Your task to perform on an android device: uninstall "AliExpress" Image 0: 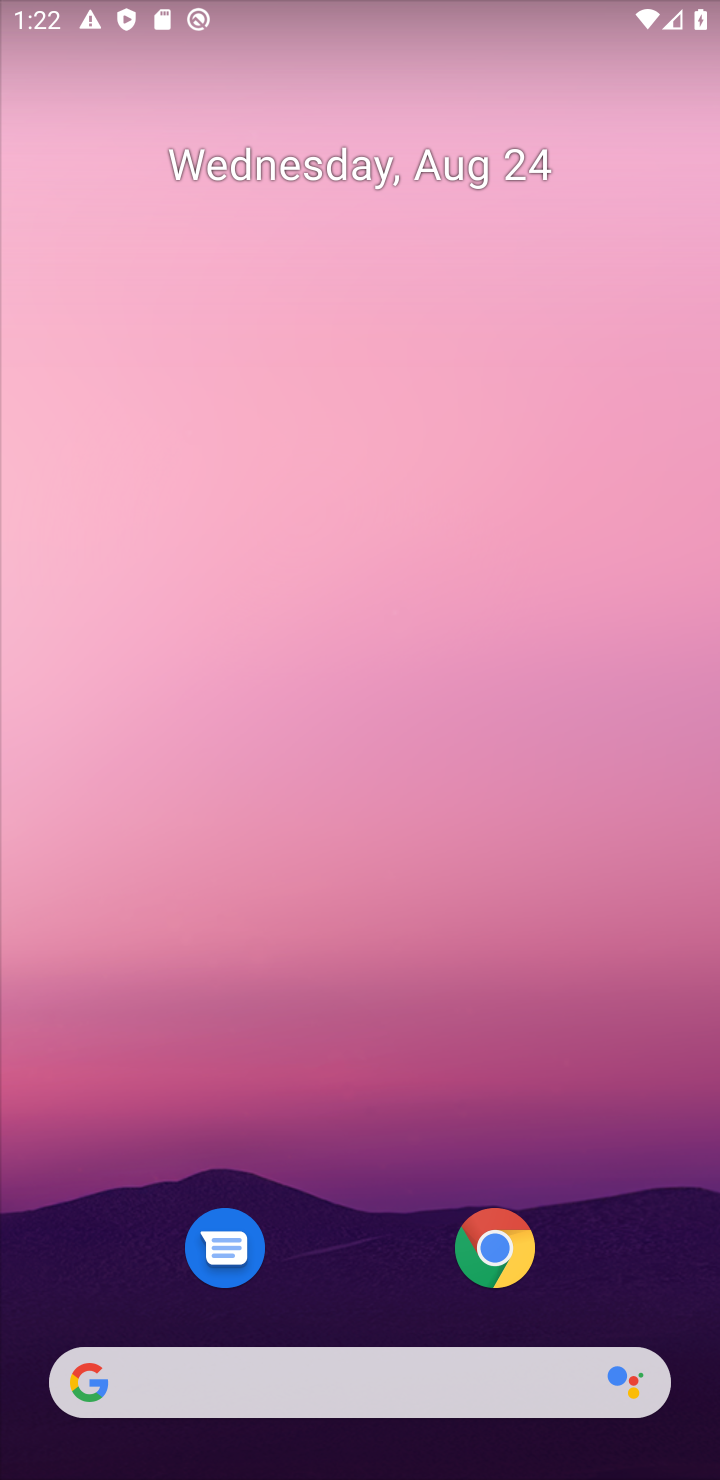
Step 0: drag from (338, 1281) to (385, 435)
Your task to perform on an android device: uninstall "AliExpress" Image 1: 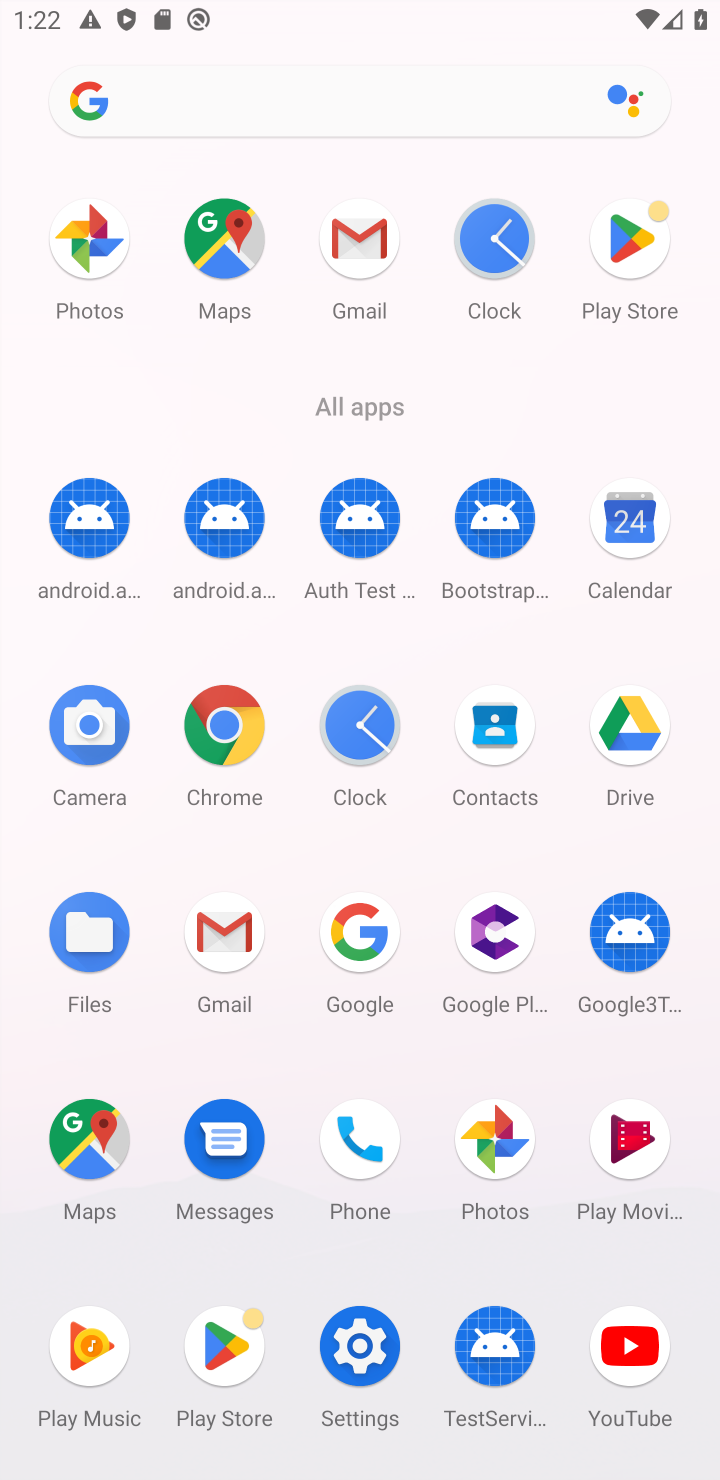
Step 1: click (615, 232)
Your task to perform on an android device: uninstall "AliExpress" Image 2: 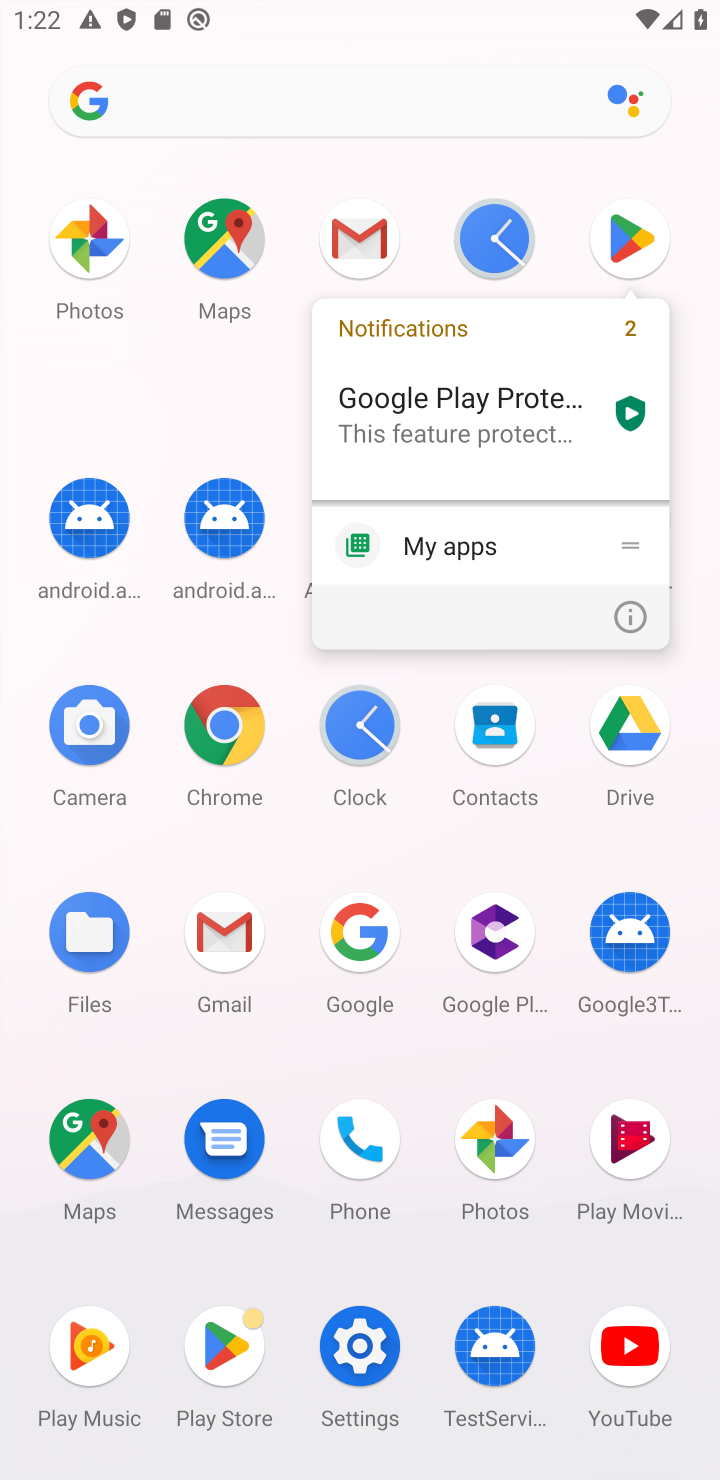
Step 2: click (629, 241)
Your task to perform on an android device: uninstall "AliExpress" Image 3: 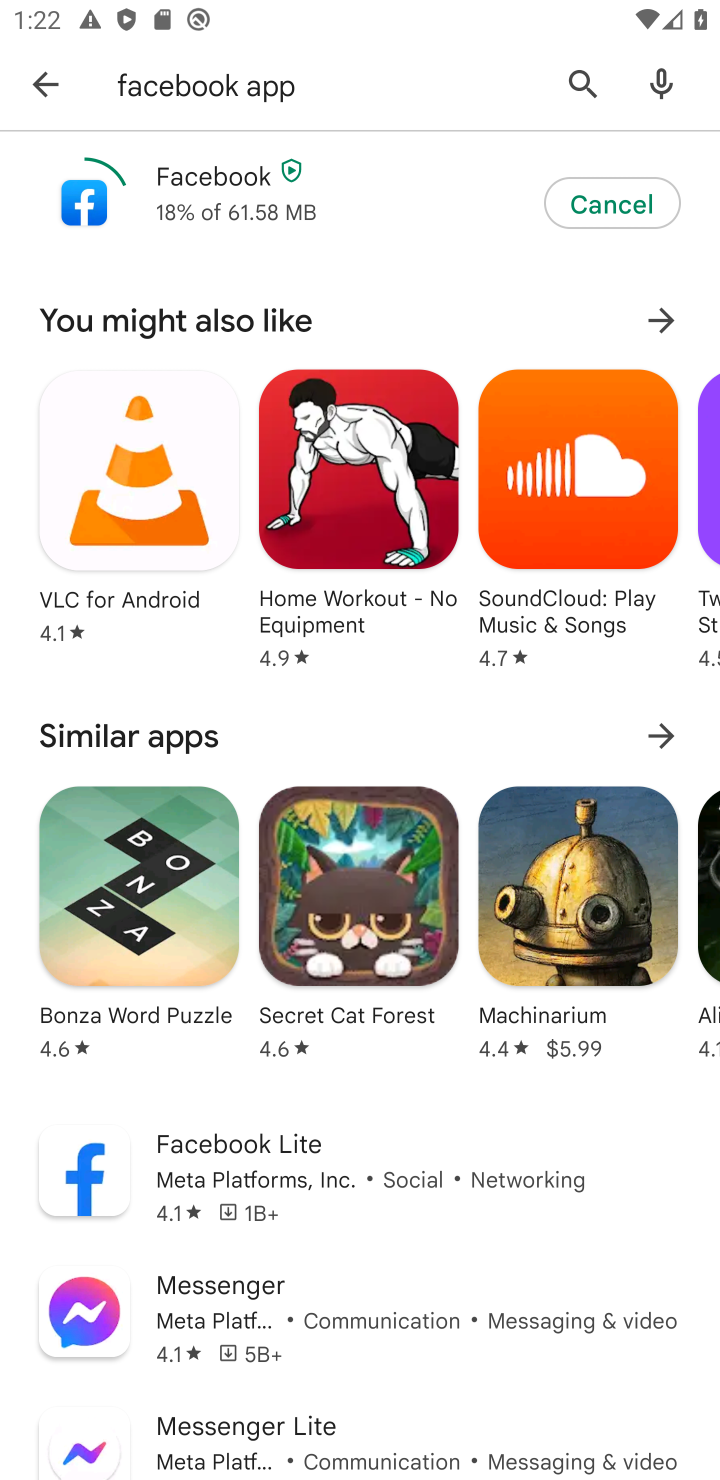
Step 3: click (42, 80)
Your task to perform on an android device: uninstall "AliExpress" Image 4: 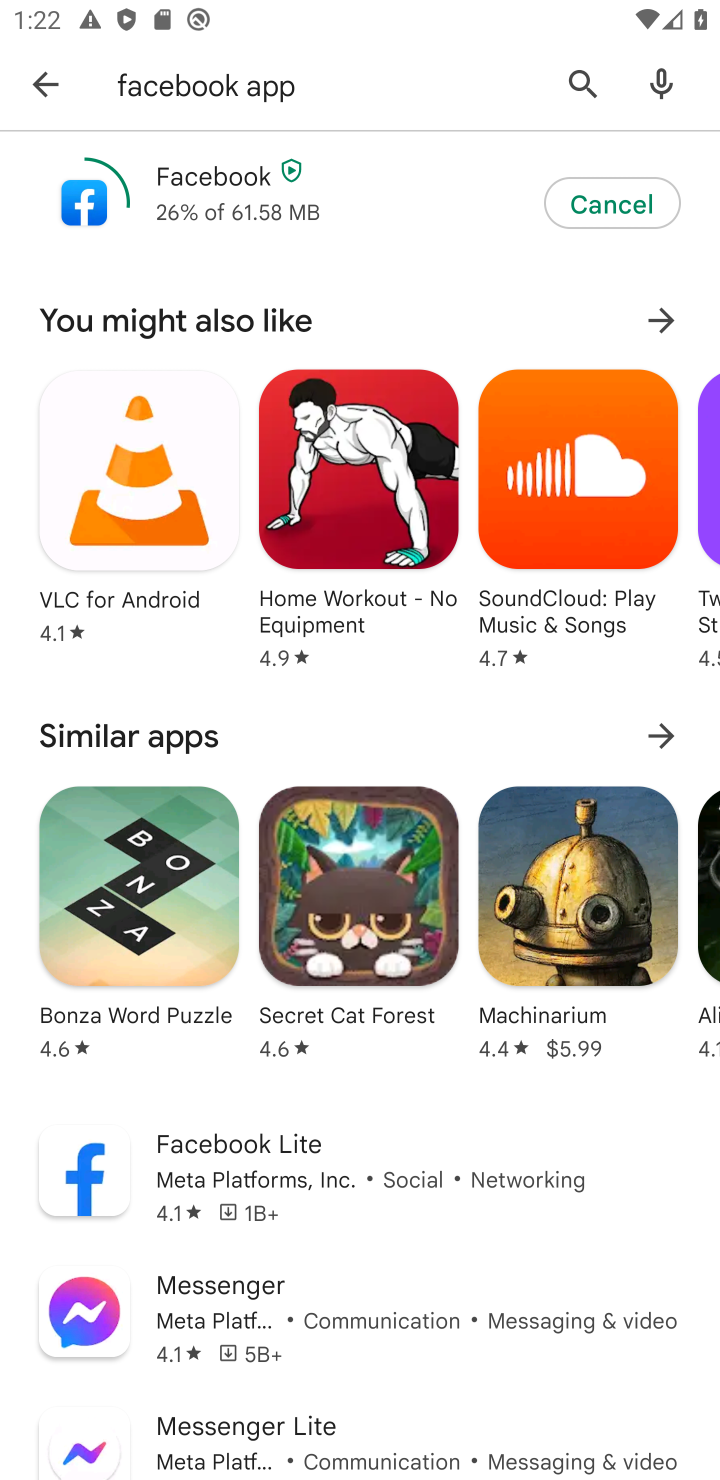
Step 4: click (42, 80)
Your task to perform on an android device: uninstall "AliExpress" Image 5: 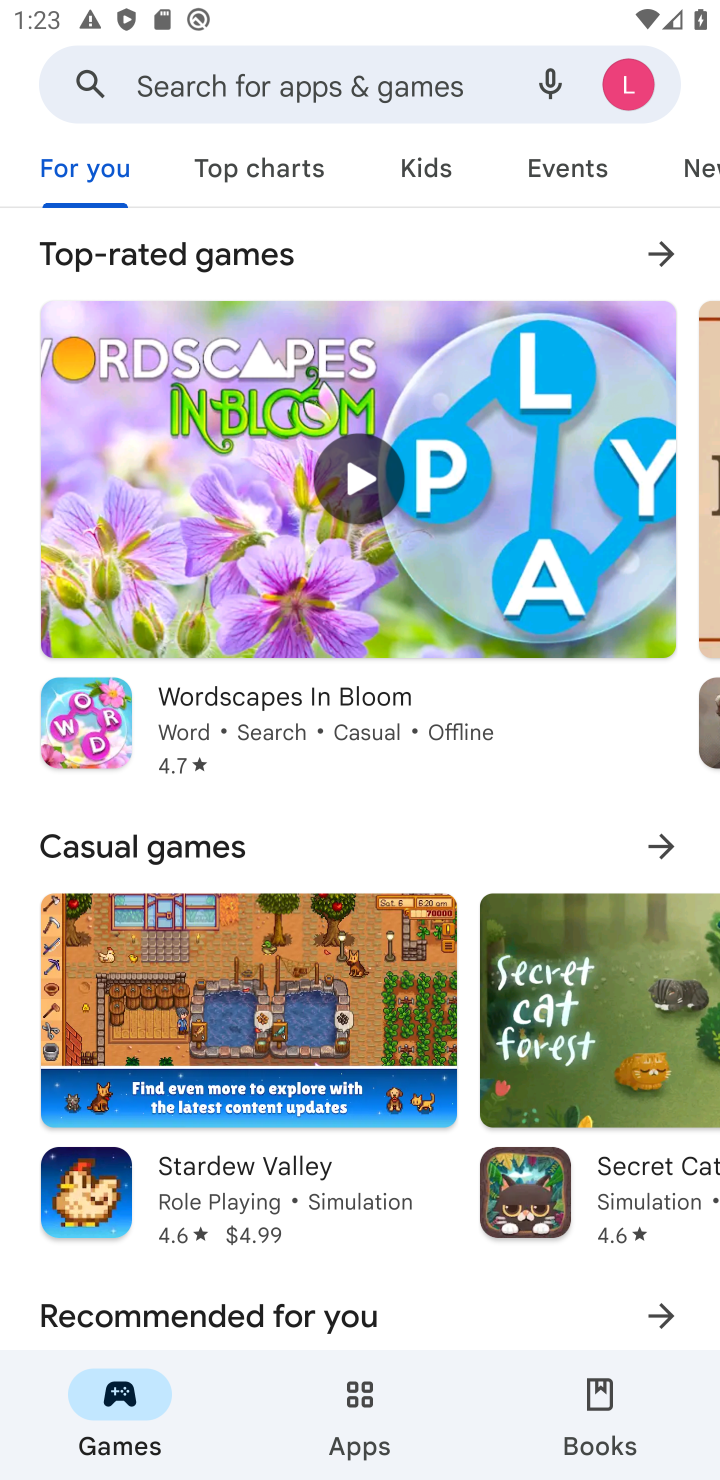
Step 5: click (252, 66)
Your task to perform on an android device: uninstall "AliExpress" Image 6: 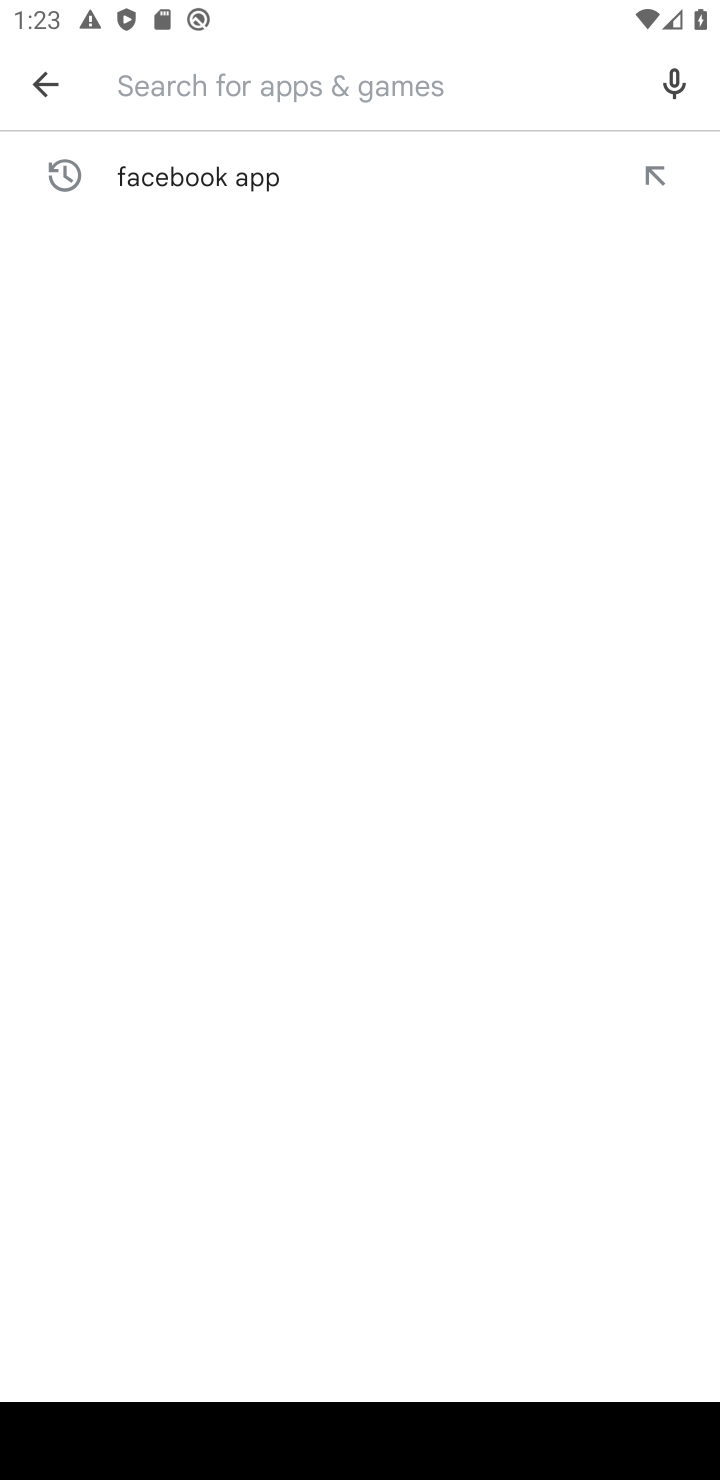
Step 6: type "AliExpress "
Your task to perform on an android device: uninstall "AliExpress" Image 7: 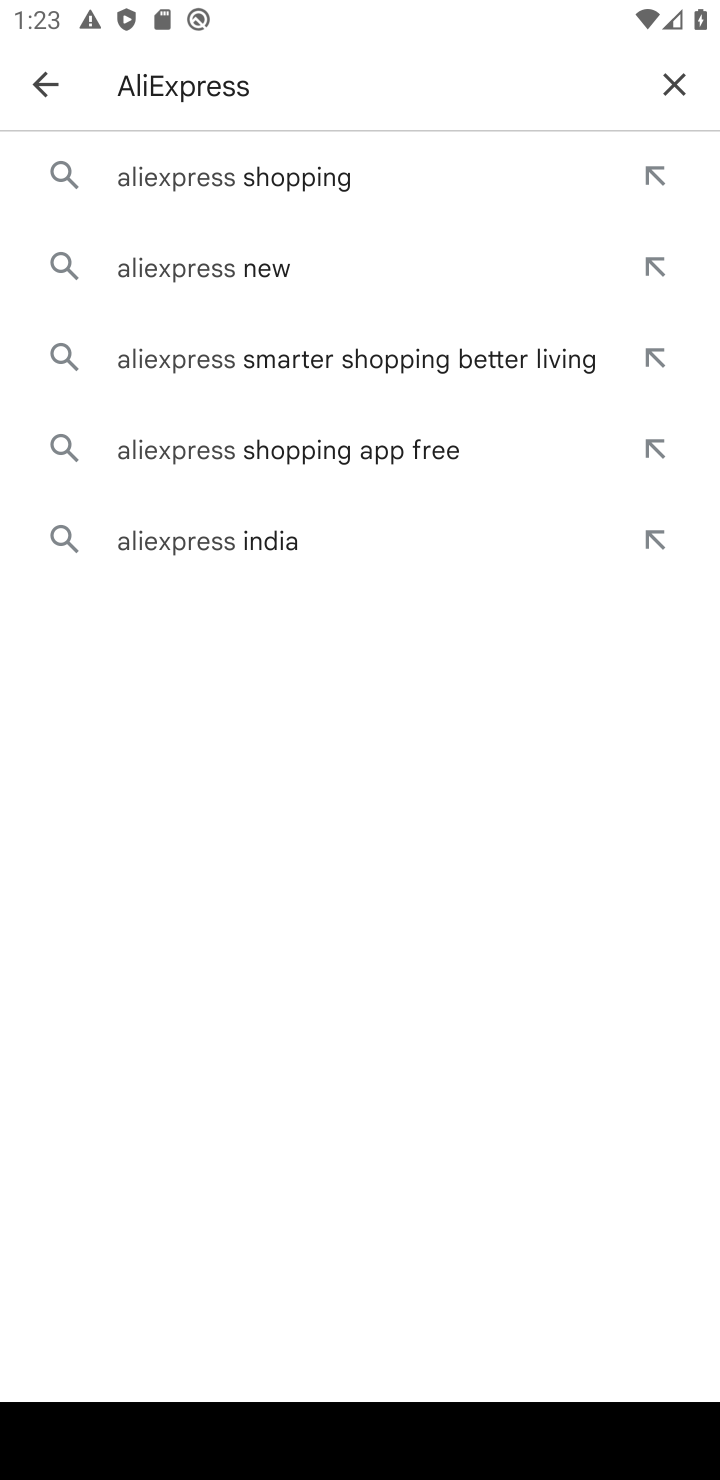
Step 7: click (233, 271)
Your task to perform on an android device: uninstall "AliExpress" Image 8: 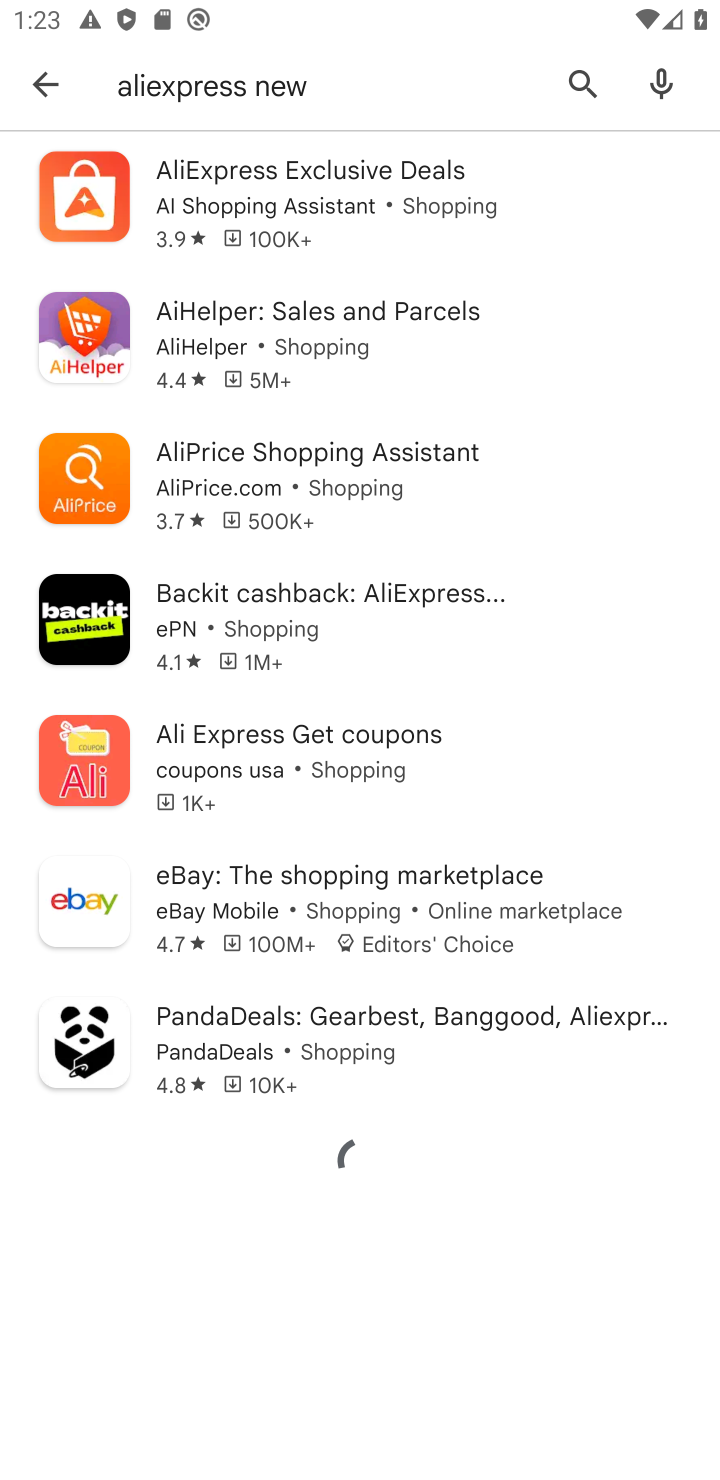
Step 8: click (364, 195)
Your task to perform on an android device: uninstall "AliExpress" Image 9: 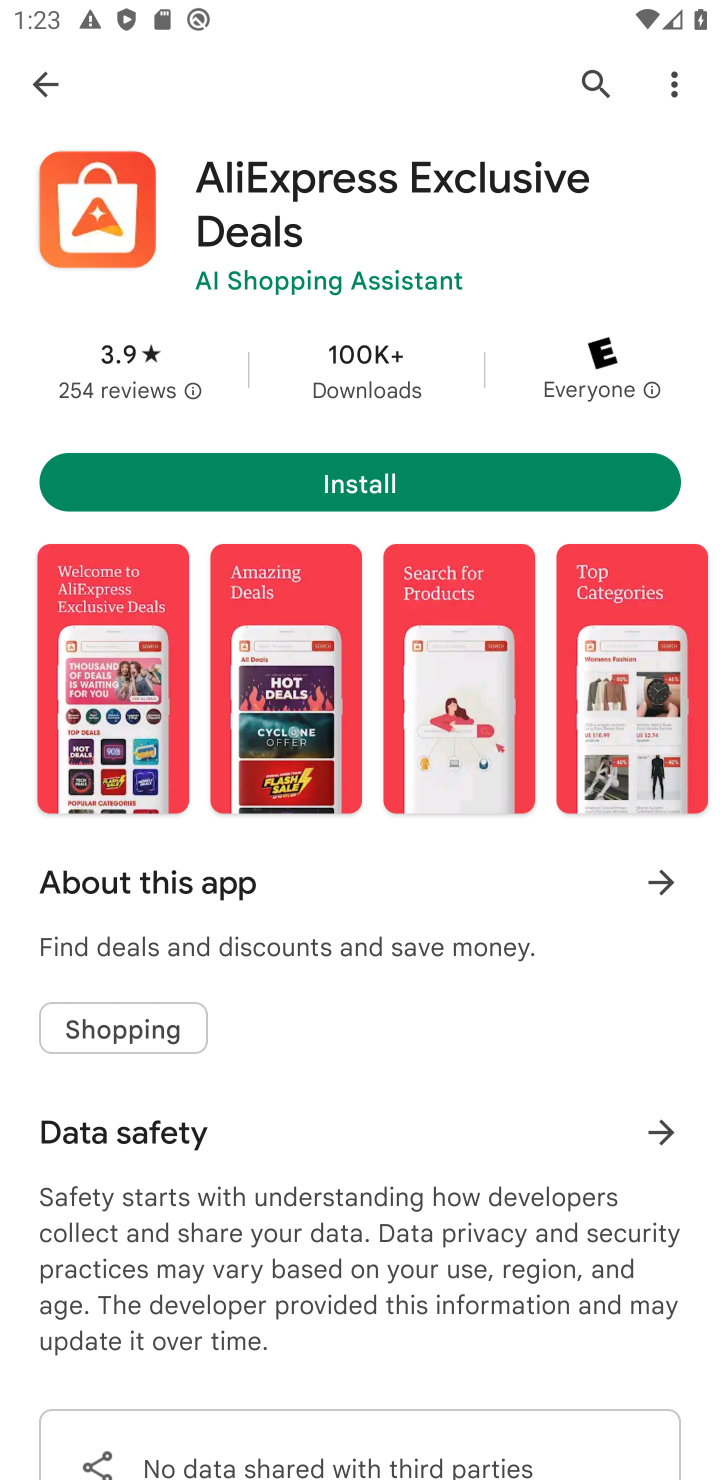
Step 9: task complete